Your task to perform on an android device: allow notifications from all sites in the chrome app Image 0: 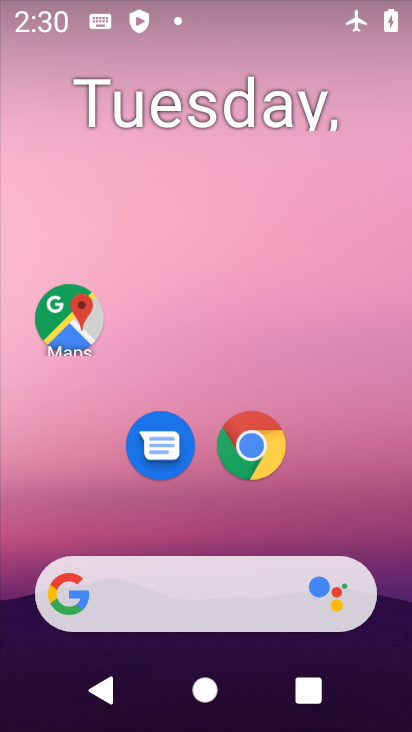
Step 0: click (263, 449)
Your task to perform on an android device: allow notifications from all sites in the chrome app Image 1: 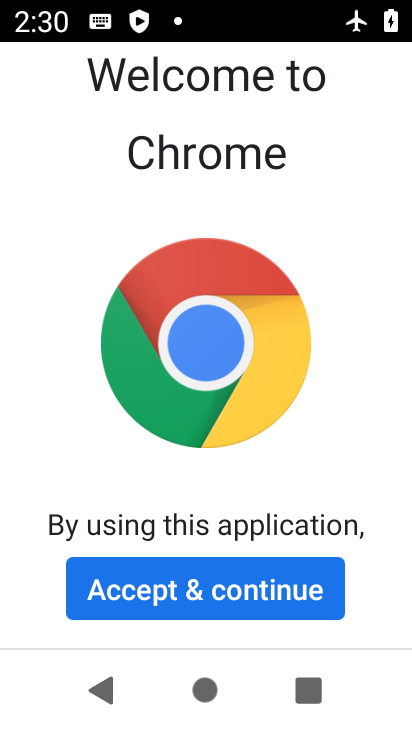
Step 1: click (219, 581)
Your task to perform on an android device: allow notifications from all sites in the chrome app Image 2: 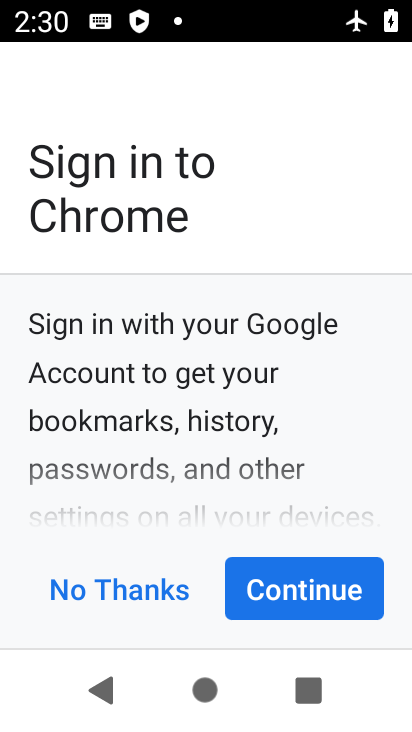
Step 2: click (256, 586)
Your task to perform on an android device: allow notifications from all sites in the chrome app Image 3: 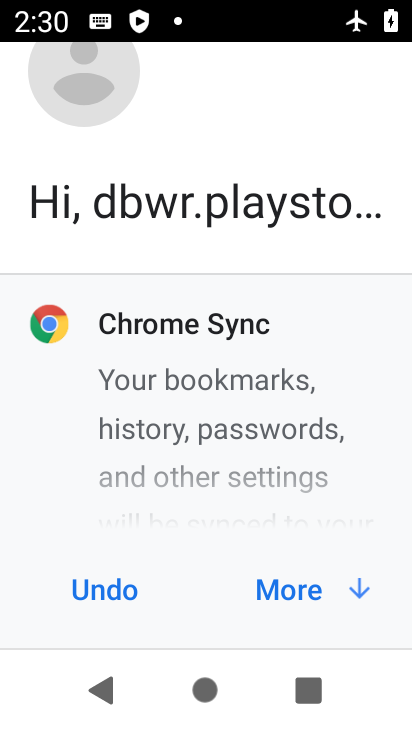
Step 3: click (309, 588)
Your task to perform on an android device: allow notifications from all sites in the chrome app Image 4: 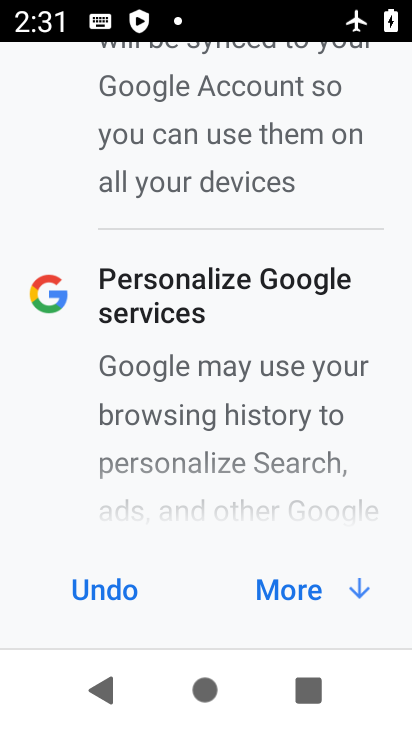
Step 4: click (309, 588)
Your task to perform on an android device: allow notifications from all sites in the chrome app Image 5: 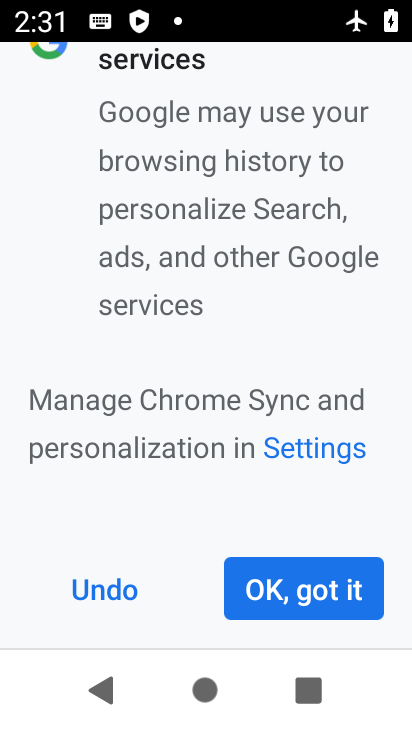
Step 5: click (309, 588)
Your task to perform on an android device: allow notifications from all sites in the chrome app Image 6: 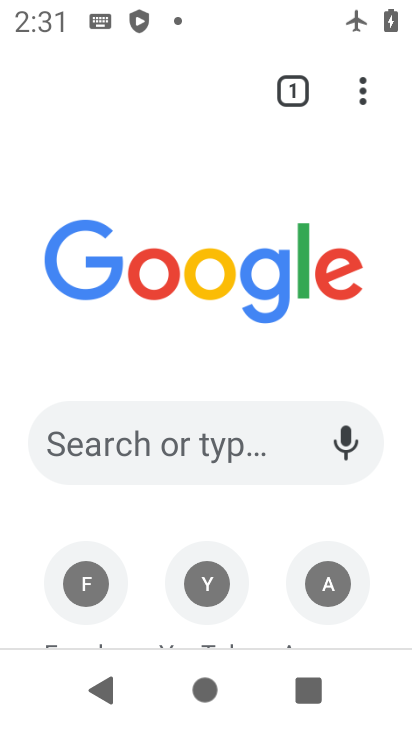
Step 6: click (366, 90)
Your task to perform on an android device: allow notifications from all sites in the chrome app Image 7: 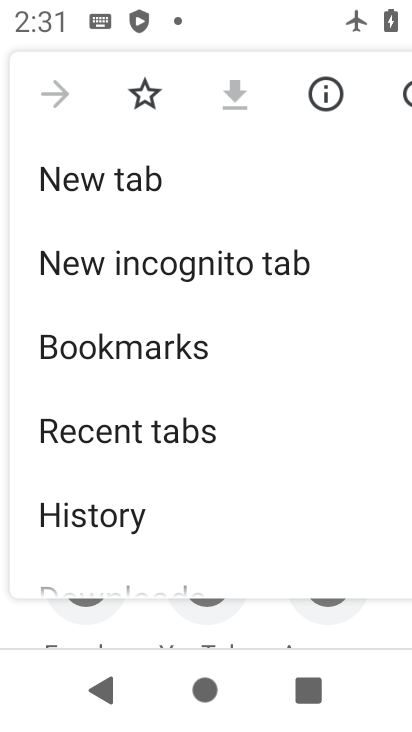
Step 7: drag from (157, 536) to (190, 125)
Your task to perform on an android device: allow notifications from all sites in the chrome app Image 8: 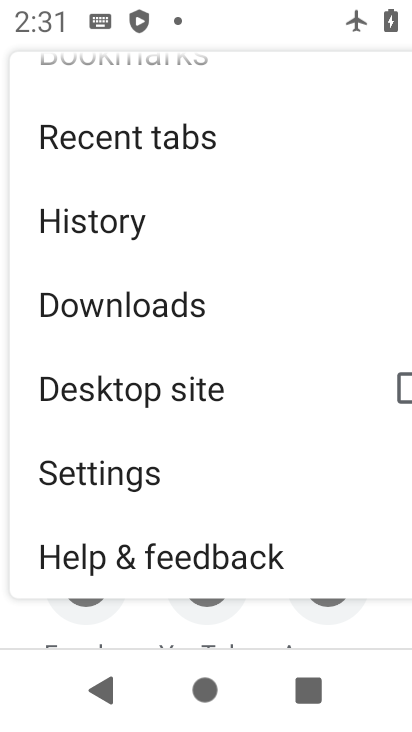
Step 8: click (131, 475)
Your task to perform on an android device: allow notifications from all sites in the chrome app Image 9: 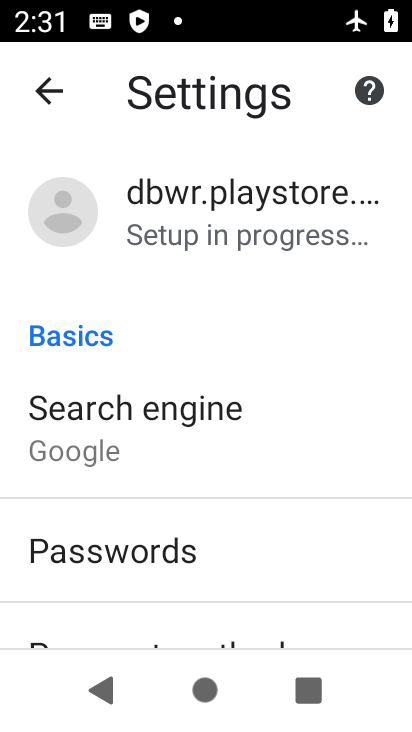
Step 9: drag from (186, 565) to (104, 275)
Your task to perform on an android device: allow notifications from all sites in the chrome app Image 10: 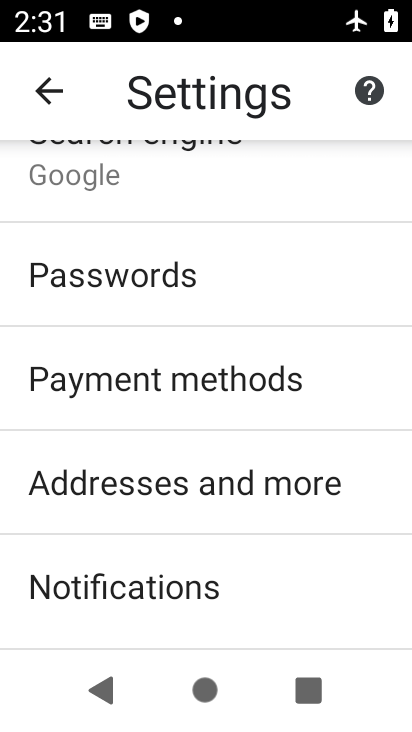
Step 10: click (157, 583)
Your task to perform on an android device: allow notifications from all sites in the chrome app Image 11: 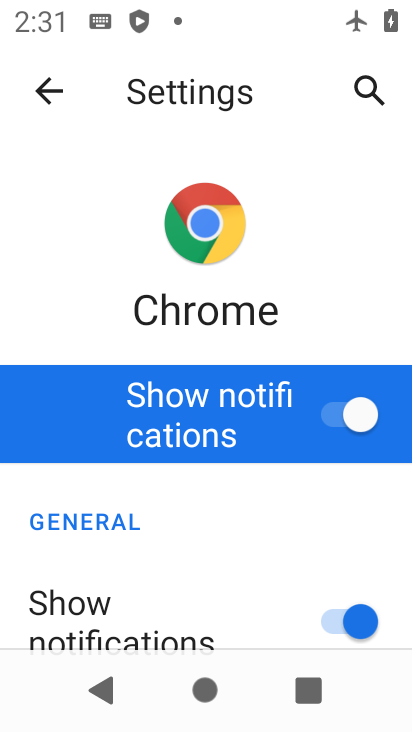
Step 11: task complete